Your task to perform on an android device: Open Google Maps and go to "Timeline" Image 0: 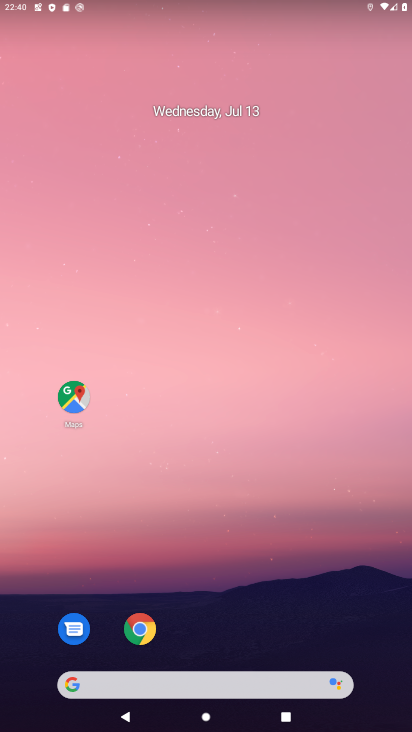
Step 0: press home button
Your task to perform on an android device: Open Google Maps and go to "Timeline" Image 1: 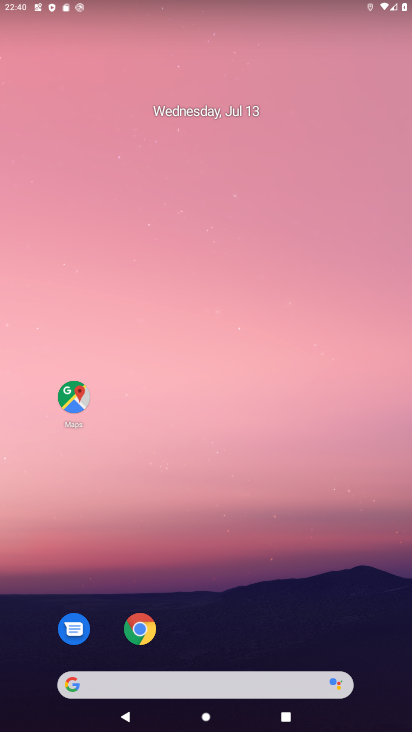
Step 1: click (75, 389)
Your task to perform on an android device: Open Google Maps and go to "Timeline" Image 2: 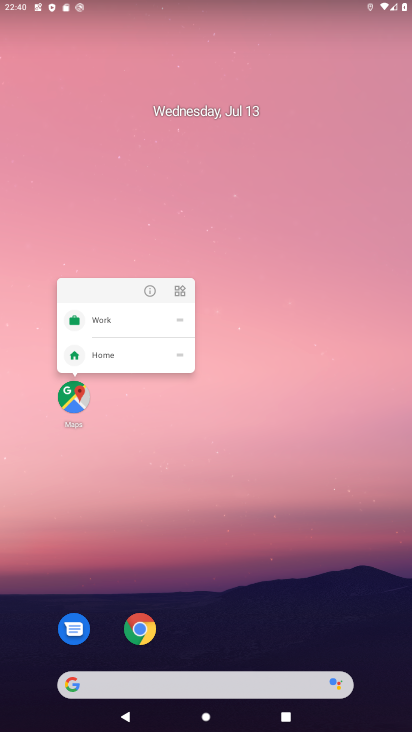
Step 2: click (77, 392)
Your task to perform on an android device: Open Google Maps and go to "Timeline" Image 3: 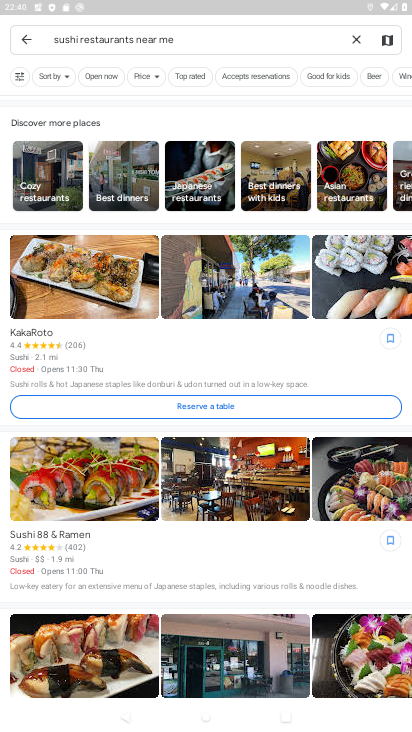
Step 3: click (24, 37)
Your task to perform on an android device: Open Google Maps and go to "Timeline" Image 4: 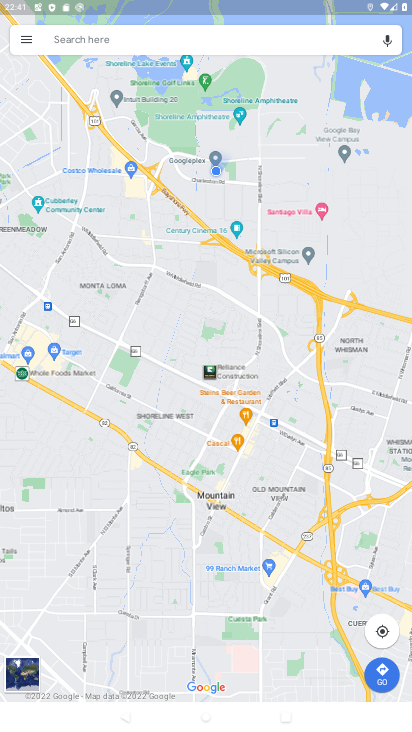
Step 4: click (22, 33)
Your task to perform on an android device: Open Google Maps and go to "Timeline" Image 5: 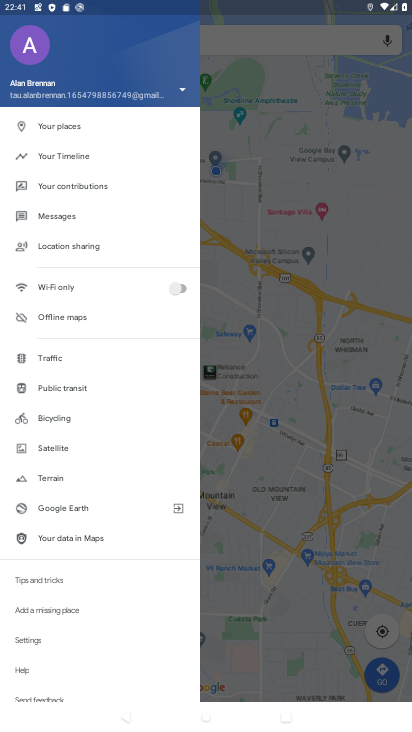
Step 5: click (68, 159)
Your task to perform on an android device: Open Google Maps and go to "Timeline" Image 6: 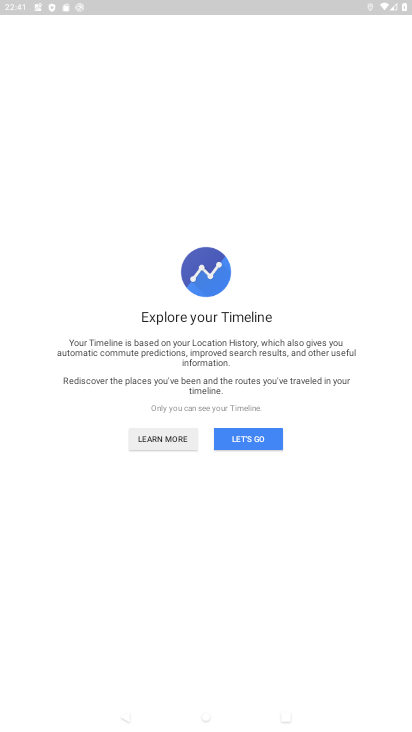
Step 6: click (241, 443)
Your task to perform on an android device: Open Google Maps and go to "Timeline" Image 7: 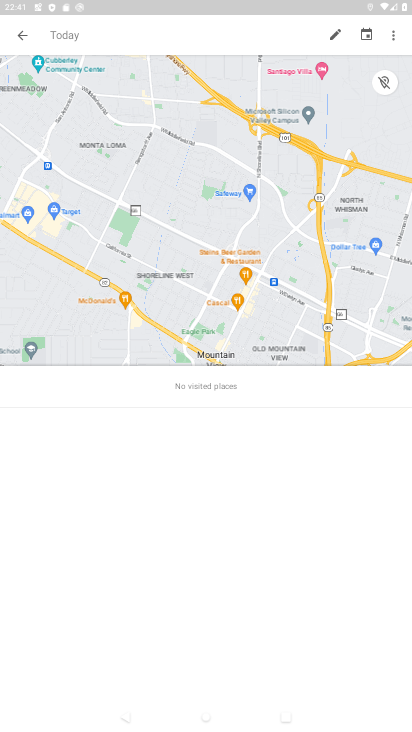
Step 7: task complete